Your task to perform on an android device: What's the weather going to be tomorrow? Image 0: 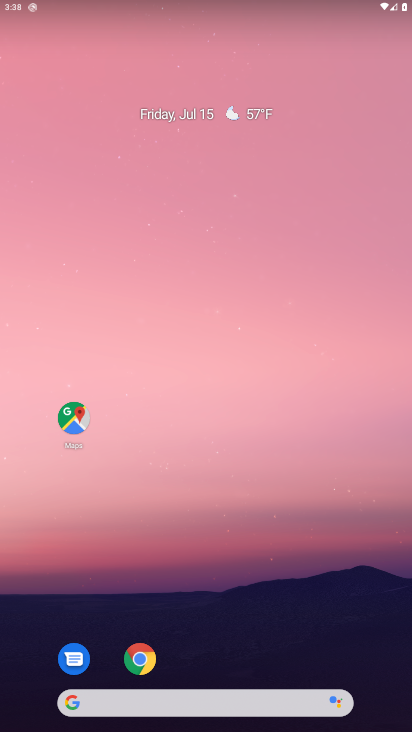
Step 0: click (182, 706)
Your task to perform on an android device: What's the weather going to be tomorrow? Image 1: 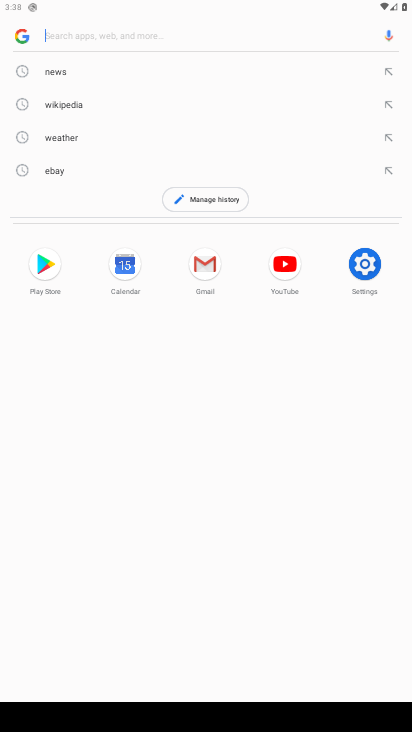
Step 1: type "What's the weather going to be tomorrow?"
Your task to perform on an android device: What's the weather going to be tomorrow? Image 2: 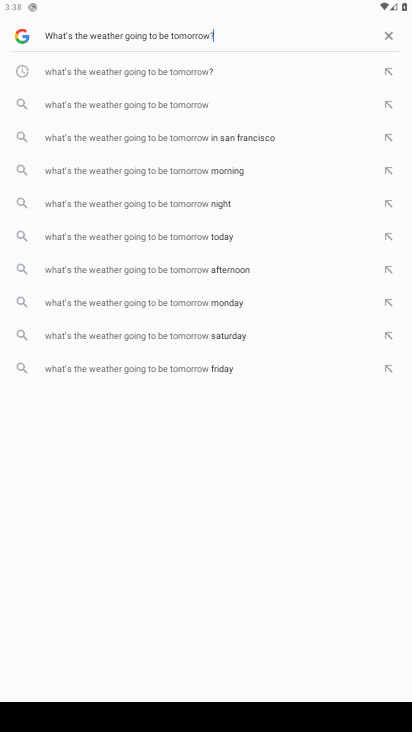
Step 2: type ""
Your task to perform on an android device: What's the weather going to be tomorrow? Image 3: 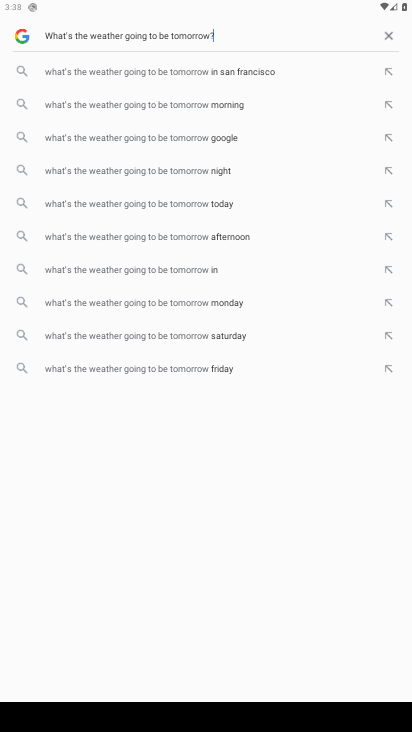
Step 3: type ""
Your task to perform on an android device: What's the weather going to be tomorrow? Image 4: 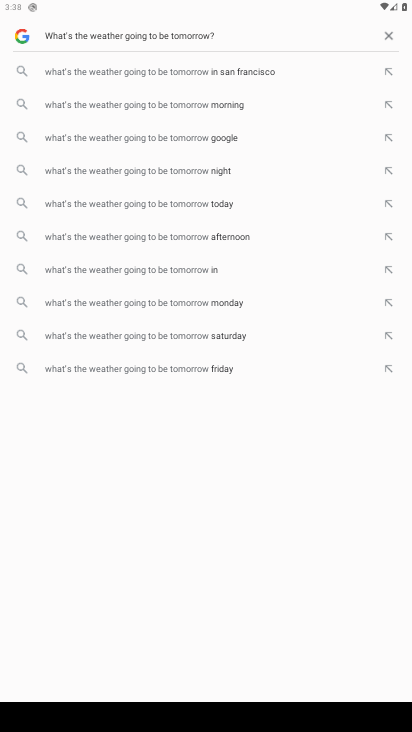
Step 4: type ""
Your task to perform on an android device: What's the weather going to be tomorrow? Image 5: 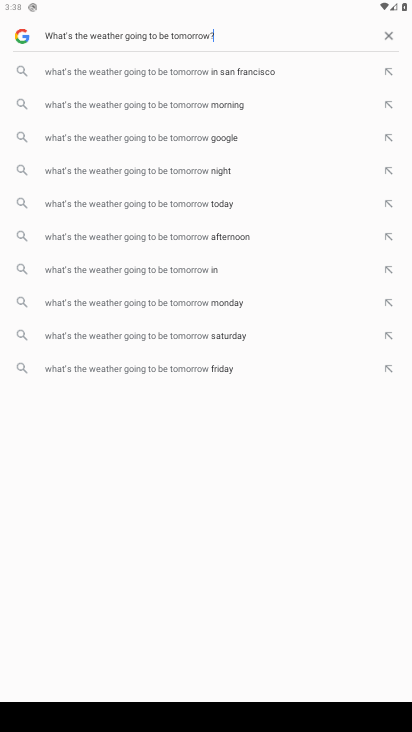
Step 5: task complete